Your task to perform on an android device: all mails in gmail Image 0: 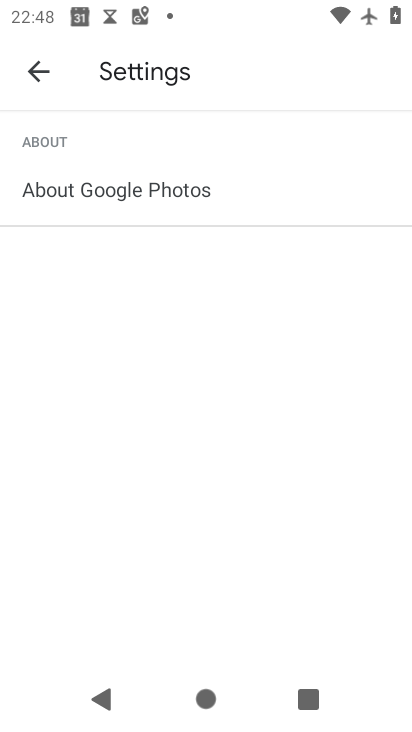
Step 0: press home button
Your task to perform on an android device: all mails in gmail Image 1: 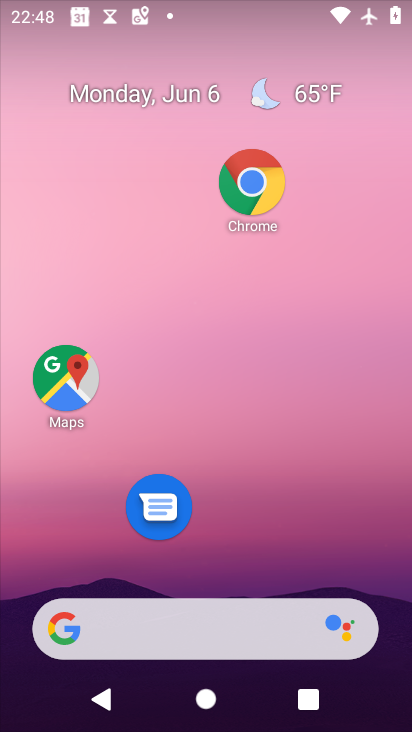
Step 1: drag from (233, 587) to (267, 156)
Your task to perform on an android device: all mails in gmail Image 2: 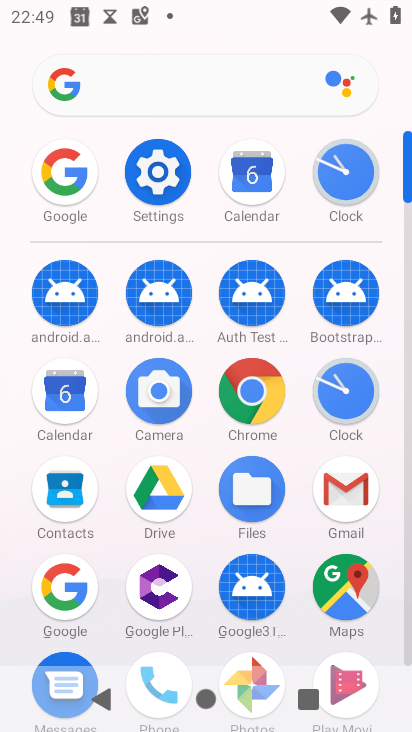
Step 2: click (353, 489)
Your task to perform on an android device: all mails in gmail Image 3: 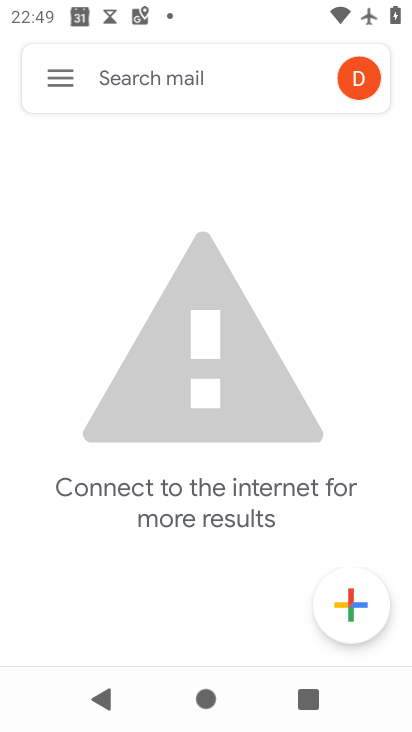
Step 3: click (64, 67)
Your task to perform on an android device: all mails in gmail Image 4: 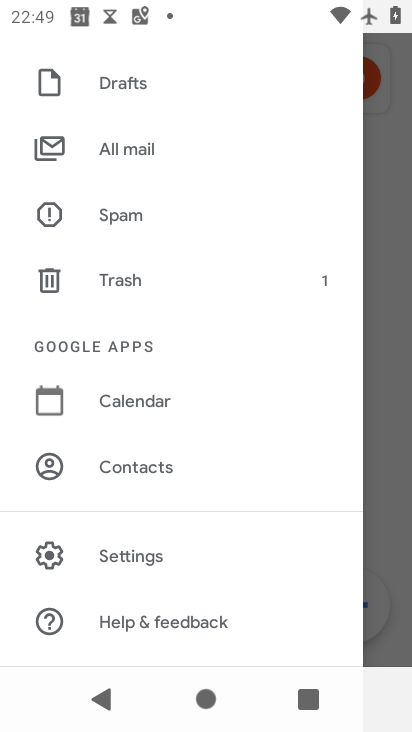
Step 4: click (140, 149)
Your task to perform on an android device: all mails in gmail Image 5: 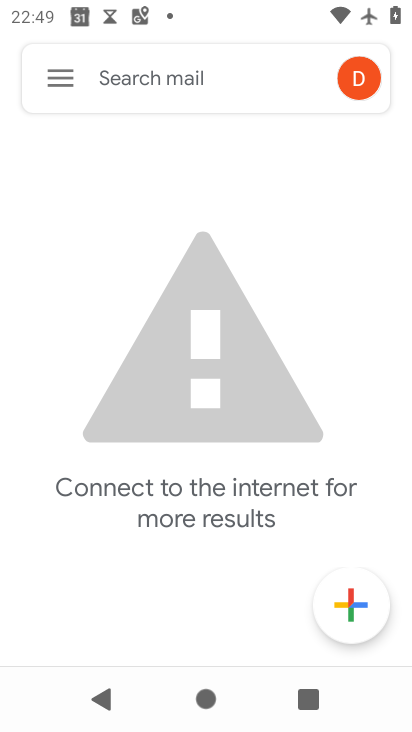
Step 5: task complete